Your task to perform on an android device: Empty the shopping cart on ebay.com. Image 0: 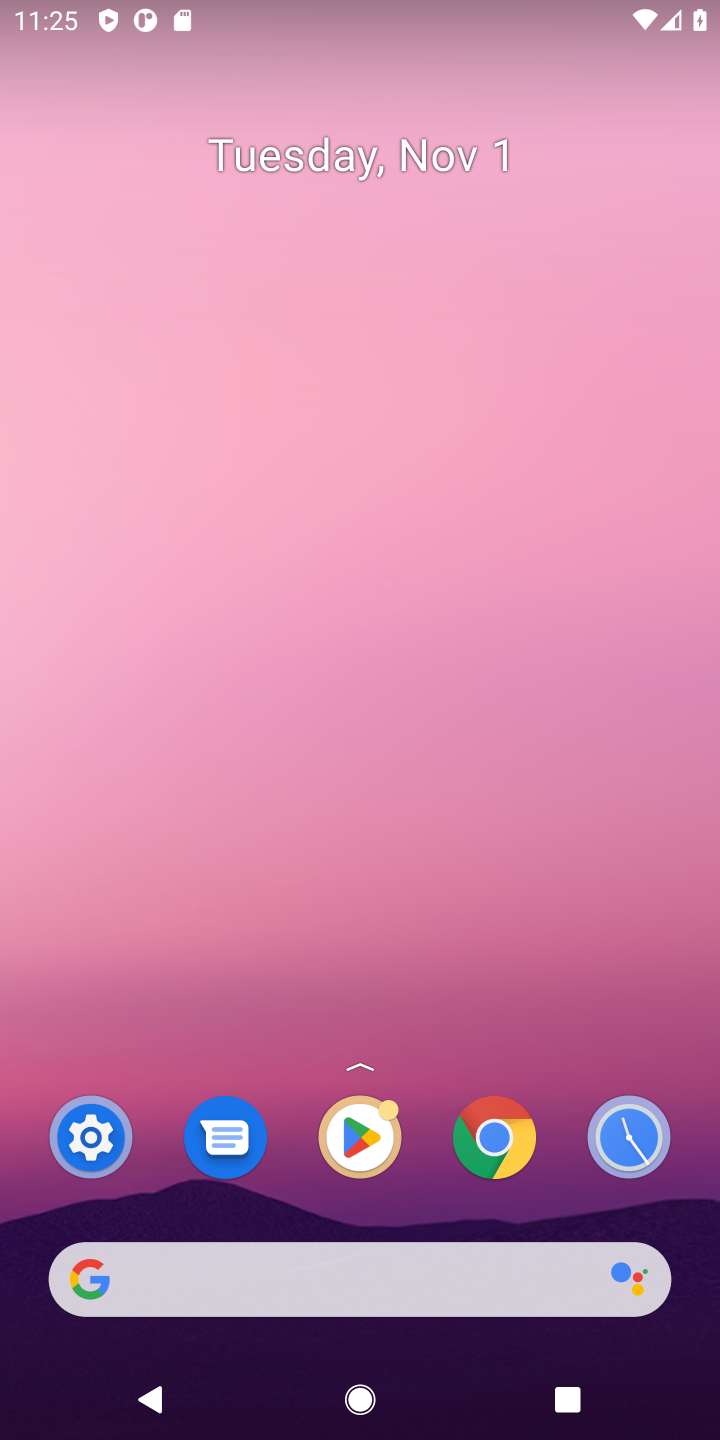
Step 0: click (357, 1292)
Your task to perform on an android device: Empty the shopping cart on ebay.com. Image 1: 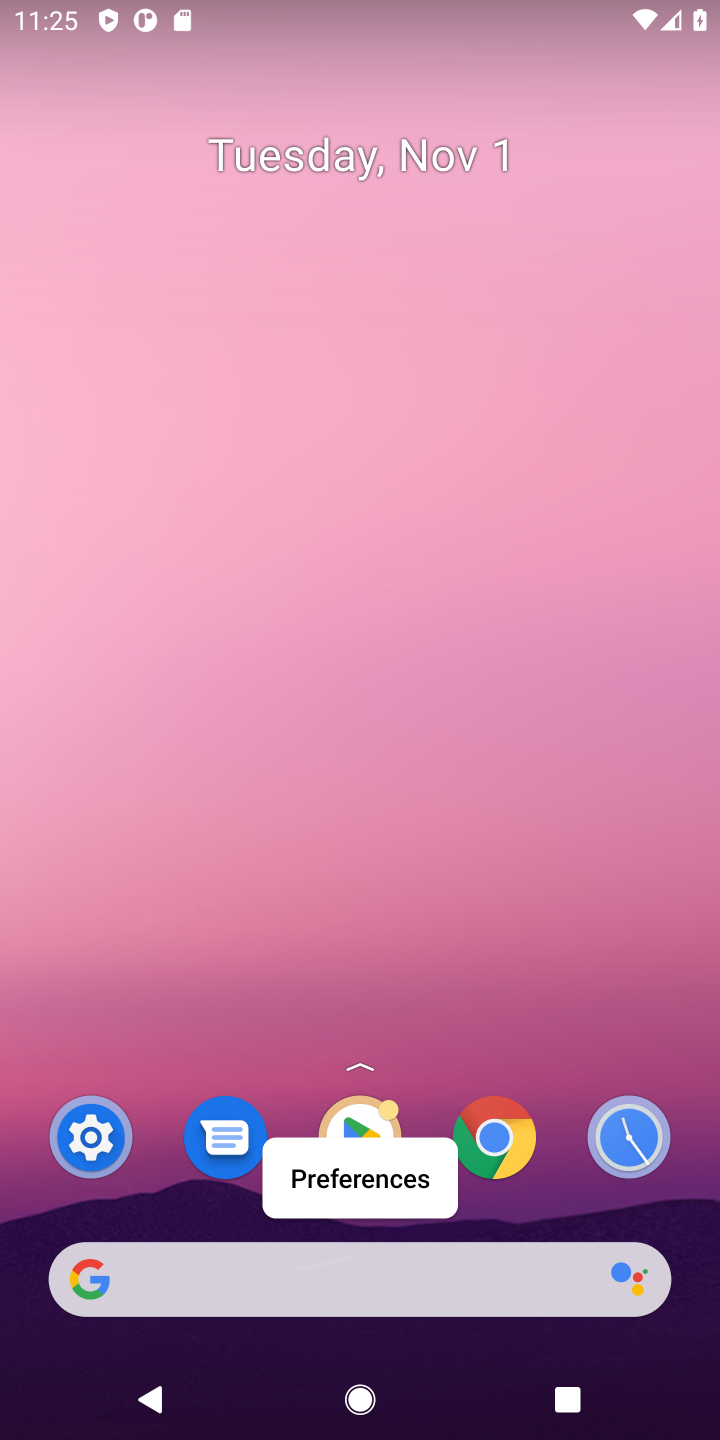
Step 1: click (357, 1292)
Your task to perform on an android device: Empty the shopping cart on ebay.com. Image 2: 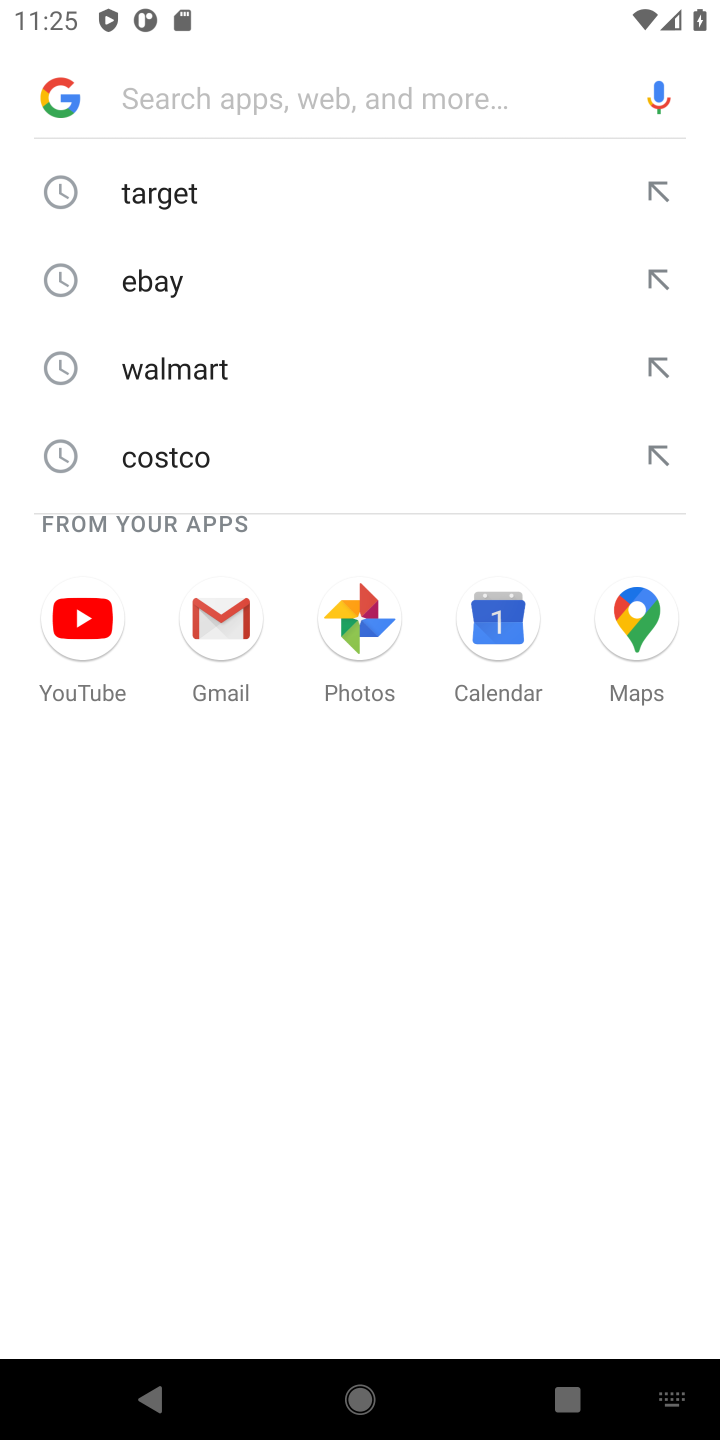
Step 2: type "ebay.com"
Your task to perform on an android device: Empty the shopping cart on ebay.com. Image 3: 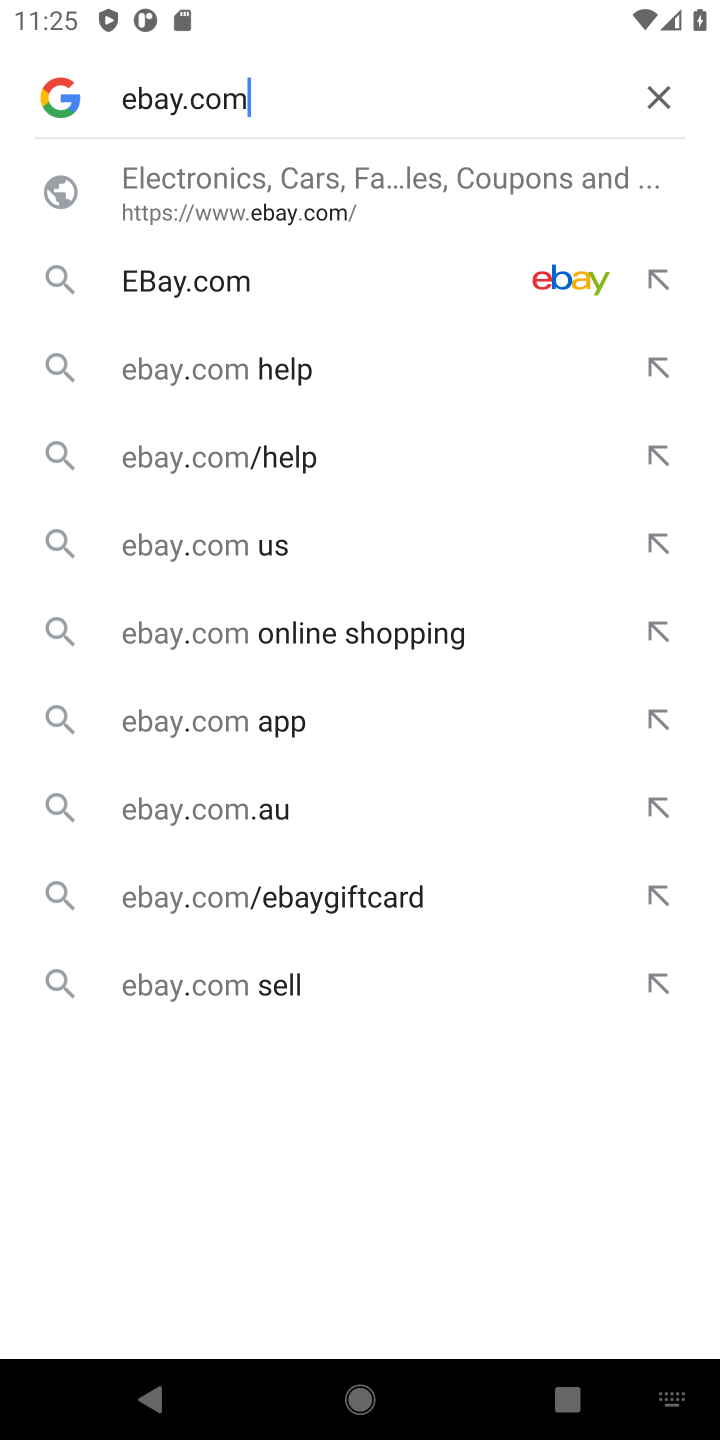
Step 3: press enter
Your task to perform on an android device: Empty the shopping cart on ebay.com. Image 4: 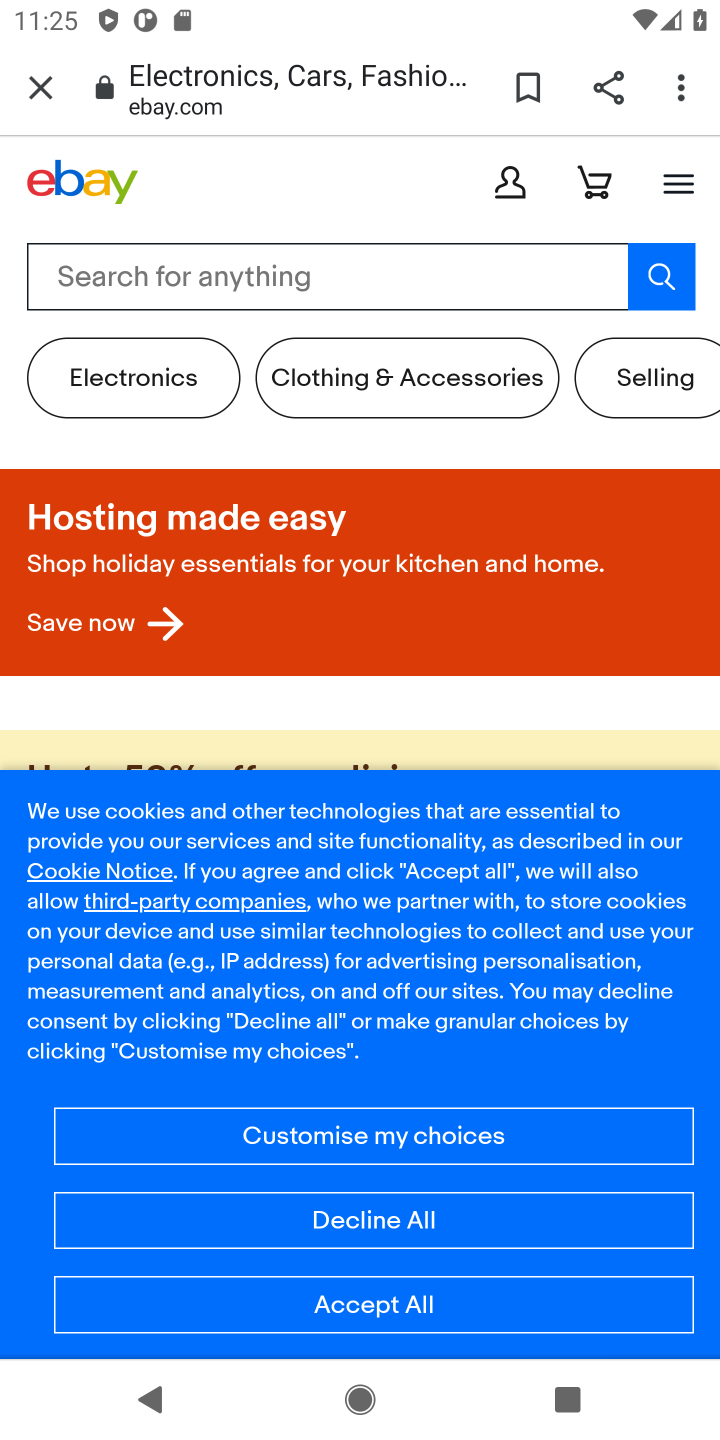
Step 4: click (370, 1224)
Your task to perform on an android device: Empty the shopping cart on ebay.com. Image 5: 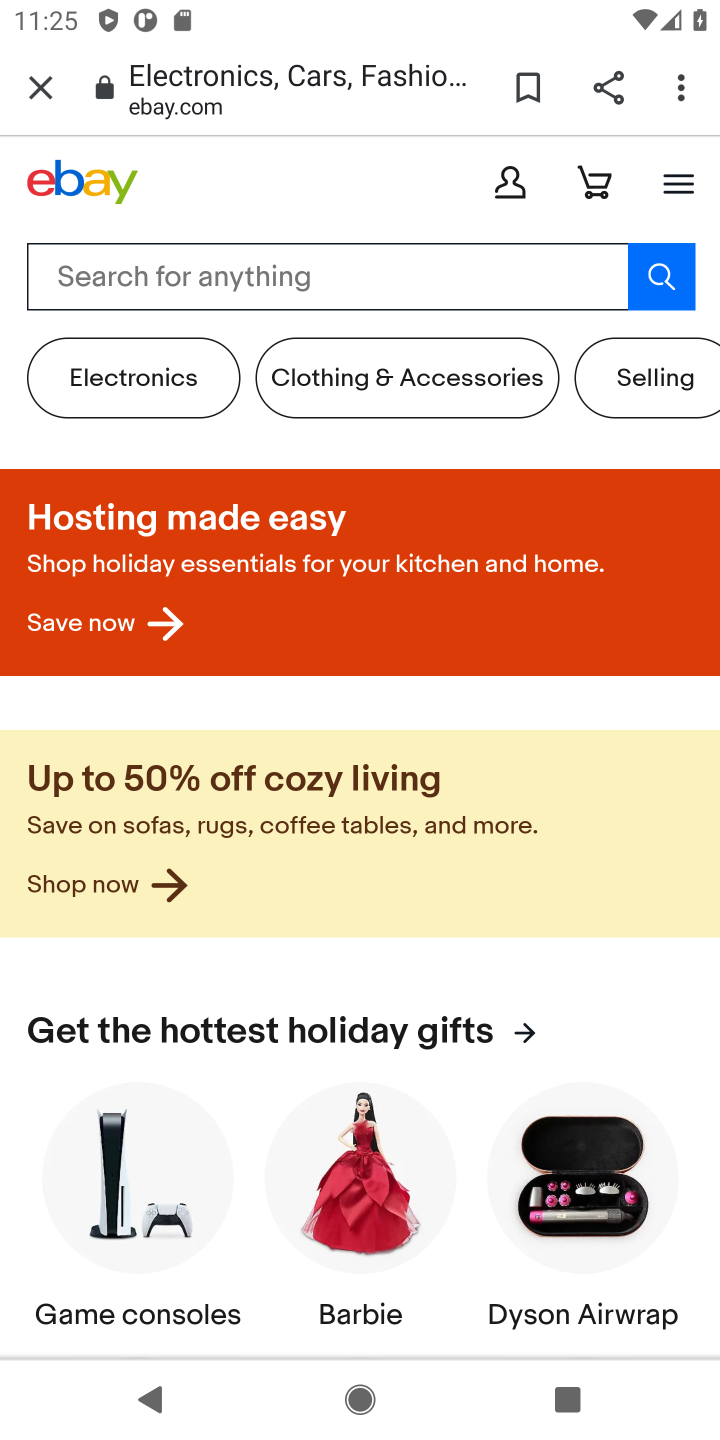
Step 5: drag from (96, 276) to (265, 273)
Your task to perform on an android device: Empty the shopping cart on ebay.com. Image 6: 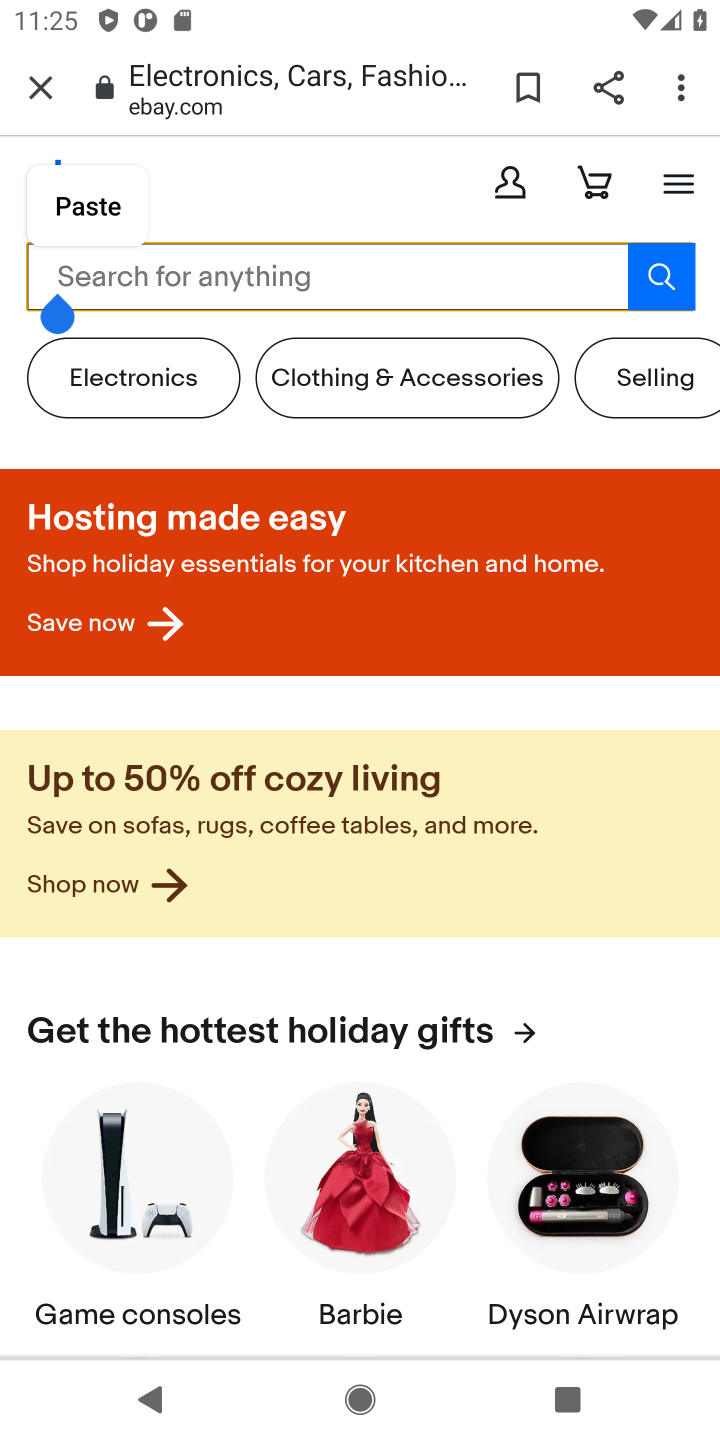
Step 6: click (583, 191)
Your task to perform on an android device: Empty the shopping cart on ebay.com. Image 7: 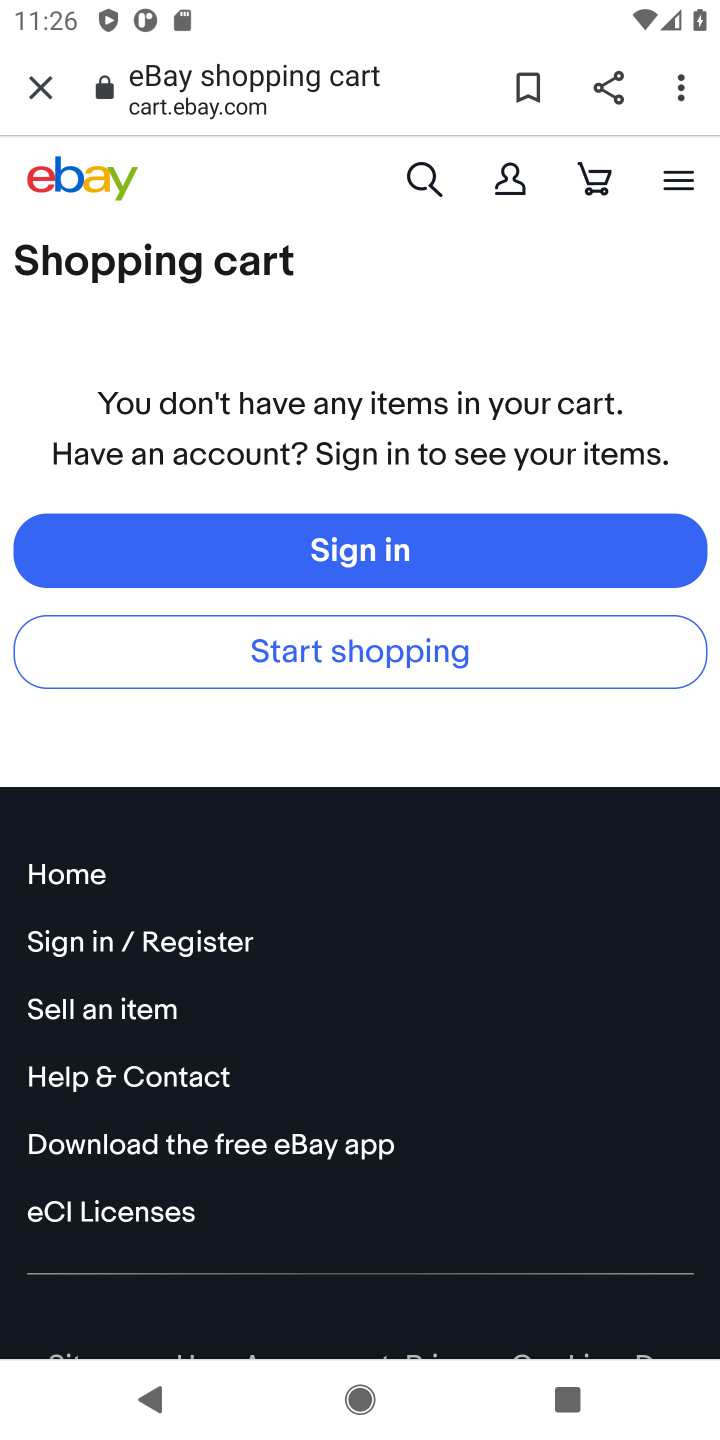
Step 7: task complete